Your task to perform on an android device: Open calendar and show me the first week of next month Image 0: 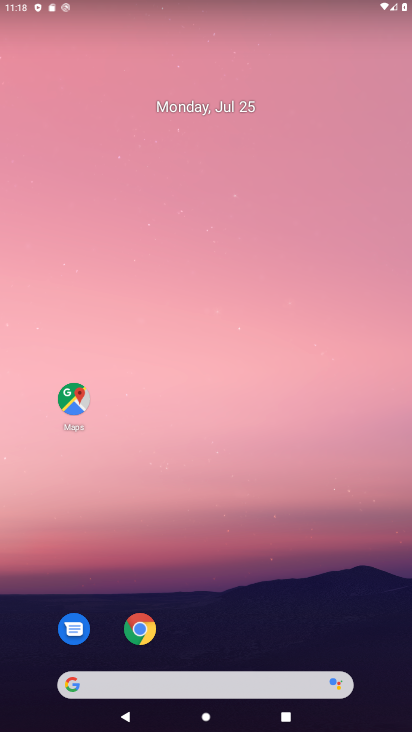
Step 0: drag from (176, 642) to (256, 188)
Your task to perform on an android device: Open calendar and show me the first week of next month Image 1: 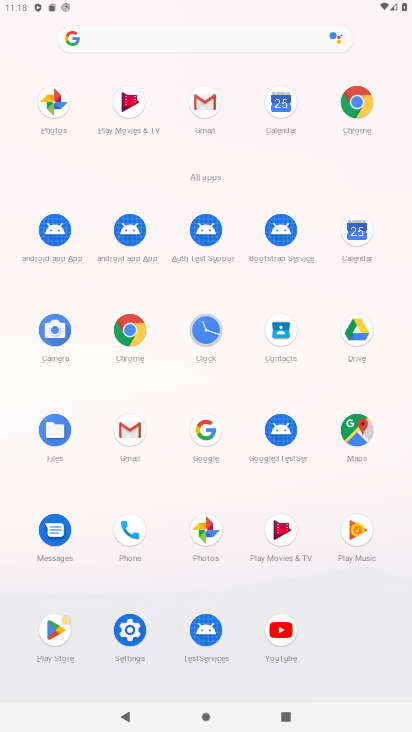
Step 1: click (362, 229)
Your task to perform on an android device: Open calendar and show me the first week of next month Image 2: 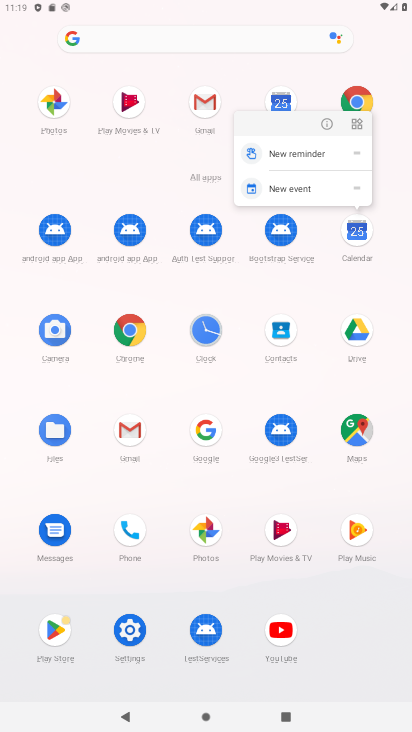
Step 2: click (329, 123)
Your task to perform on an android device: Open calendar and show me the first week of next month Image 3: 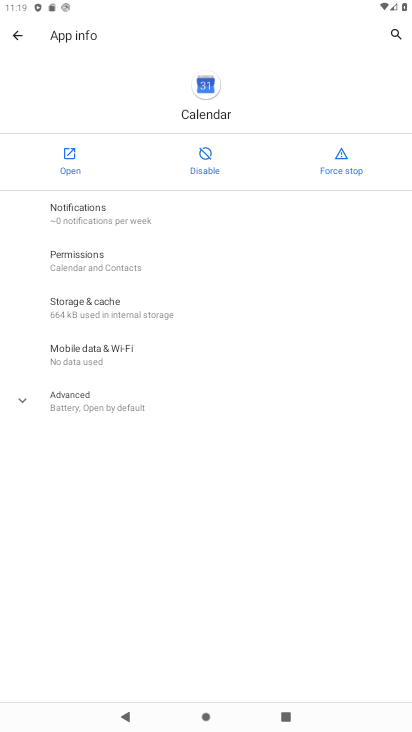
Step 3: click (77, 160)
Your task to perform on an android device: Open calendar and show me the first week of next month Image 4: 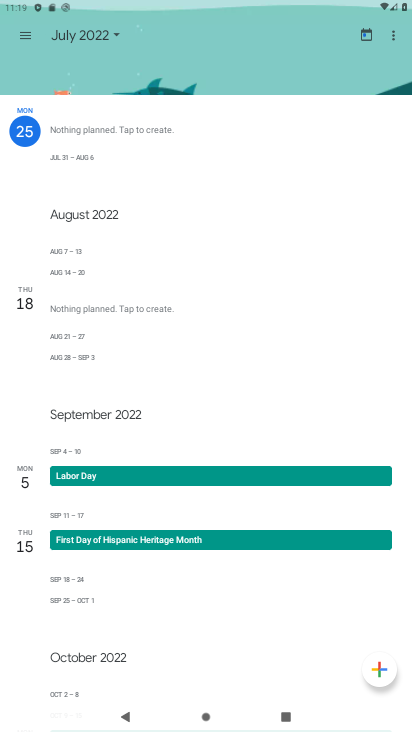
Step 4: click (367, 36)
Your task to perform on an android device: Open calendar and show me the first week of next month Image 5: 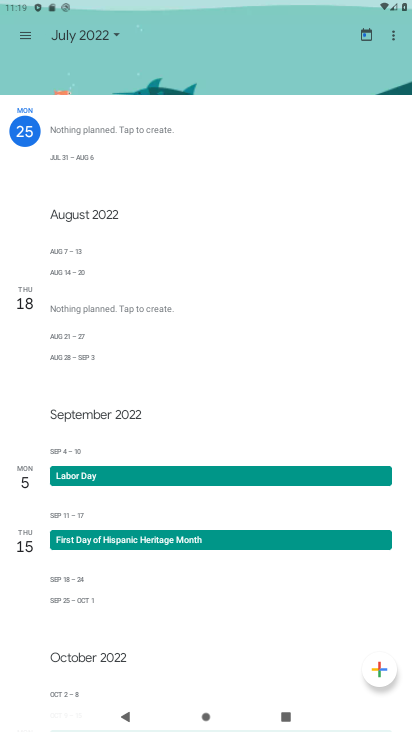
Step 5: click (69, 41)
Your task to perform on an android device: Open calendar and show me the first week of next month Image 6: 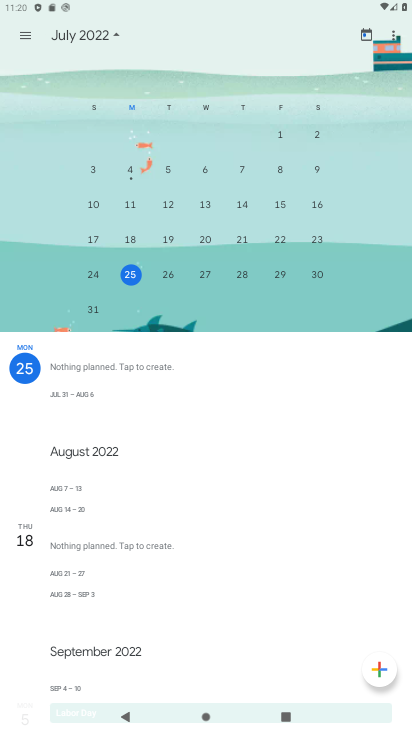
Step 6: drag from (315, 279) to (4, 314)
Your task to perform on an android device: Open calendar and show me the first week of next month Image 7: 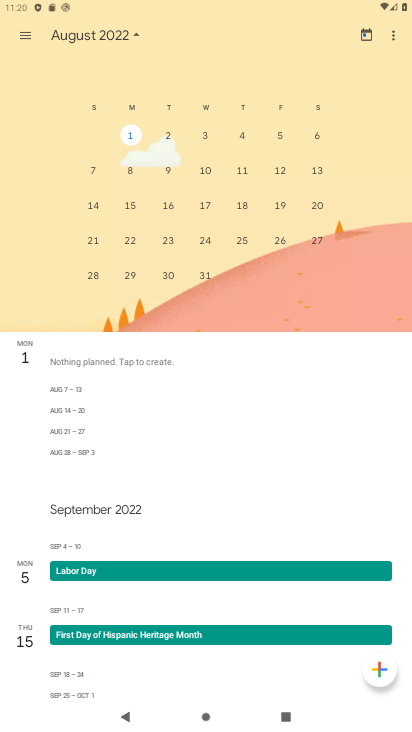
Step 7: click (244, 137)
Your task to perform on an android device: Open calendar and show me the first week of next month Image 8: 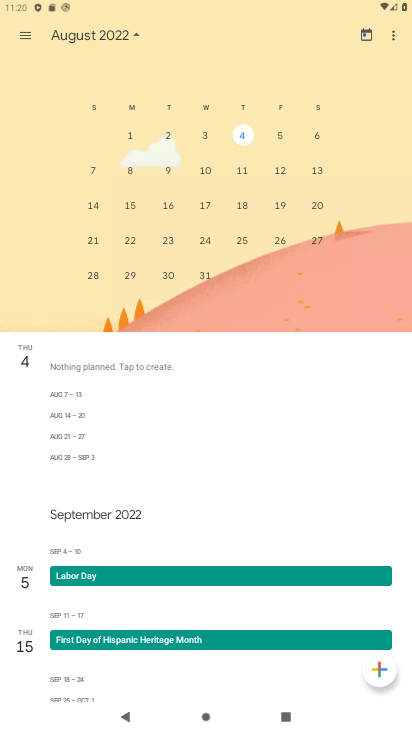
Step 8: task complete